Your task to perform on an android device: open chrome privacy settings Image 0: 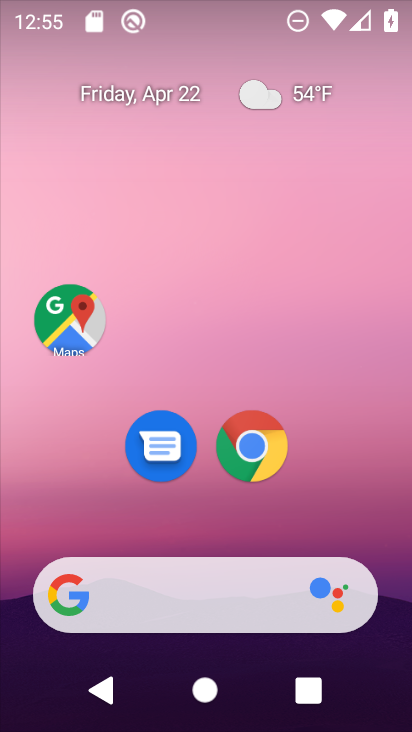
Step 0: click (277, 451)
Your task to perform on an android device: open chrome privacy settings Image 1: 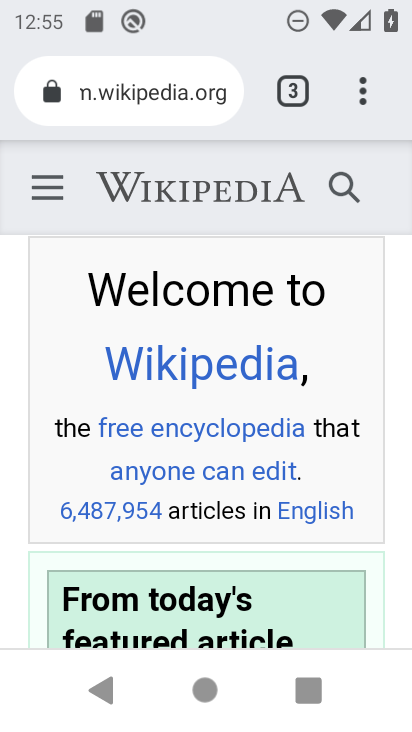
Step 1: drag from (366, 106) to (256, 490)
Your task to perform on an android device: open chrome privacy settings Image 2: 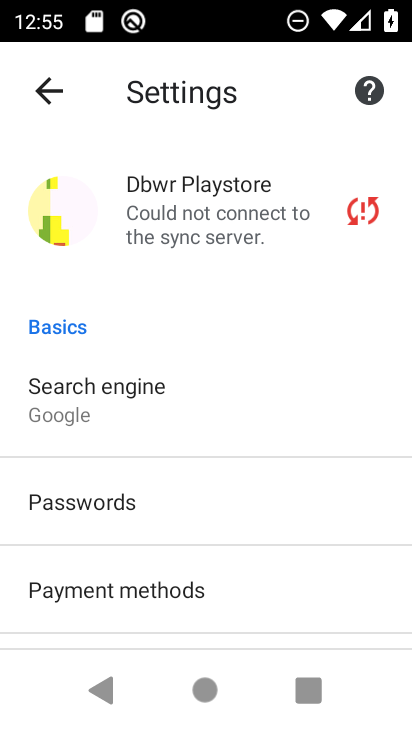
Step 2: drag from (269, 589) to (224, 53)
Your task to perform on an android device: open chrome privacy settings Image 3: 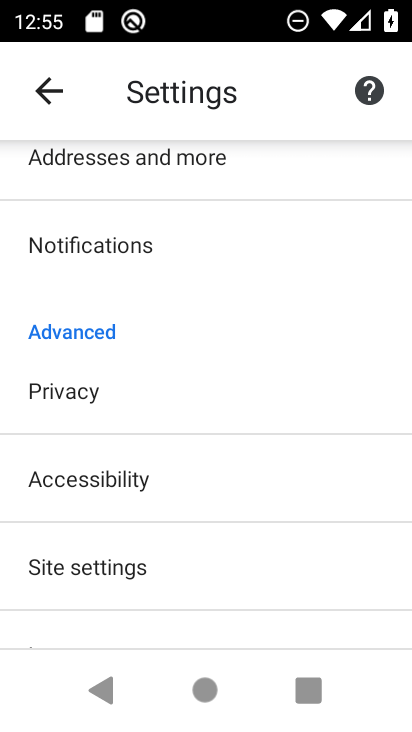
Step 3: click (222, 399)
Your task to perform on an android device: open chrome privacy settings Image 4: 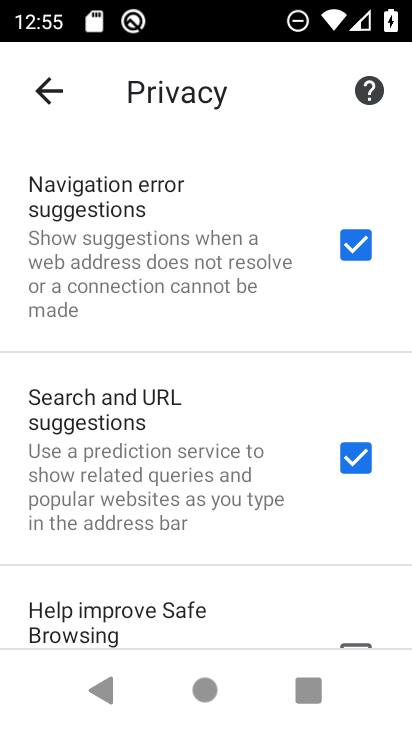
Step 4: task complete